Your task to perform on an android device: What's on my calendar today? Image 0: 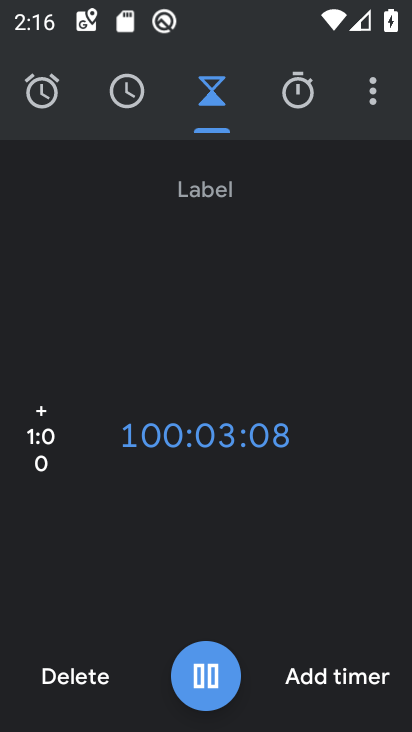
Step 0: press home button
Your task to perform on an android device: What's on my calendar today? Image 1: 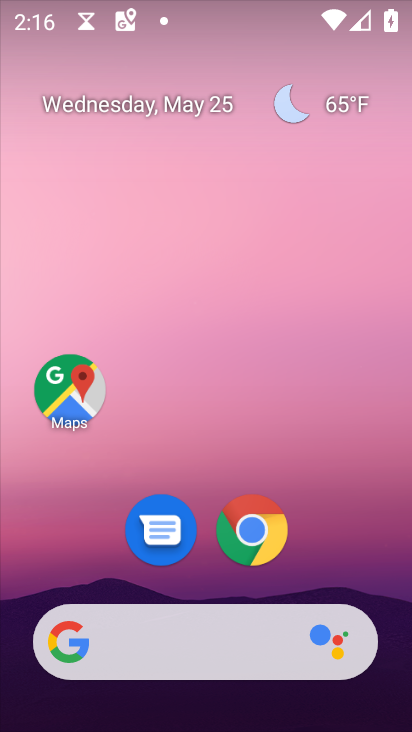
Step 1: drag from (360, 567) to (325, 245)
Your task to perform on an android device: What's on my calendar today? Image 2: 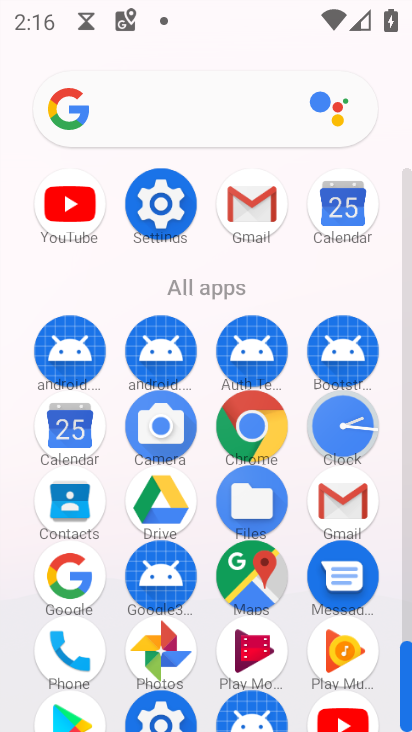
Step 2: click (61, 400)
Your task to perform on an android device: What's on my calendar today? Image 3: 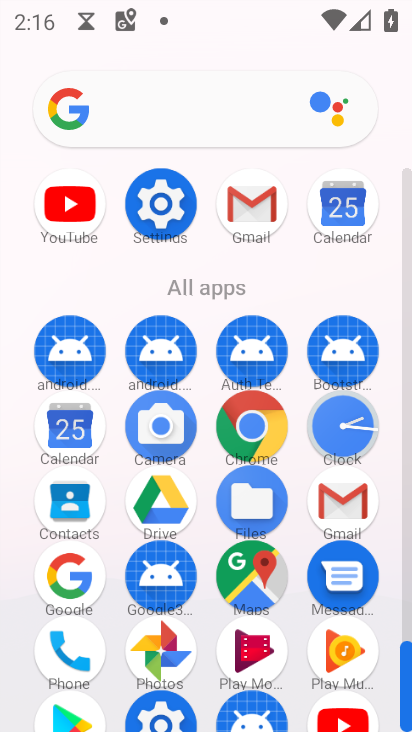
Step 3: click (61, 408)
Your task to perform on an android device: What's on my calendar today? Image 4: 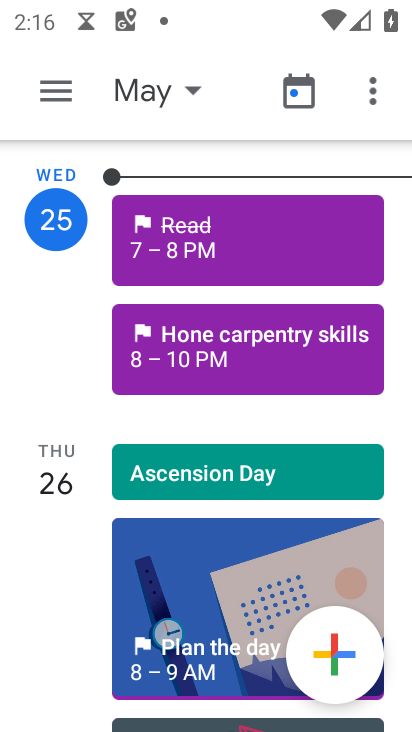
Step 4: task complete